Your task to perform on an android device: Play the last video I watched on Youtube Image 0: 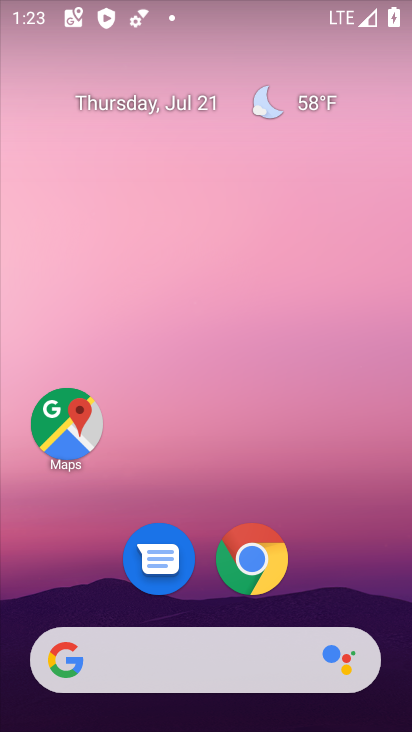
Step 0: drag from (381, 573) to (380, 110)
Your task to perform on an android device: Play the last video I watched on Youtube Image 1: 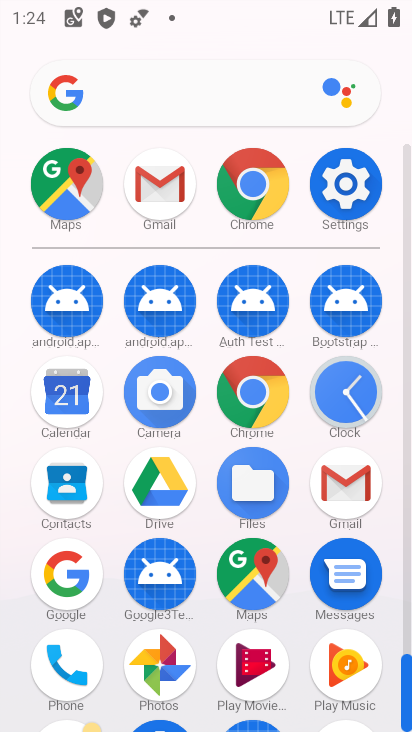
Step 1: drag from (392, 539) to (394, 373)
Your task to perform on an android device: Play the last video I watched on Youtube Image 2: 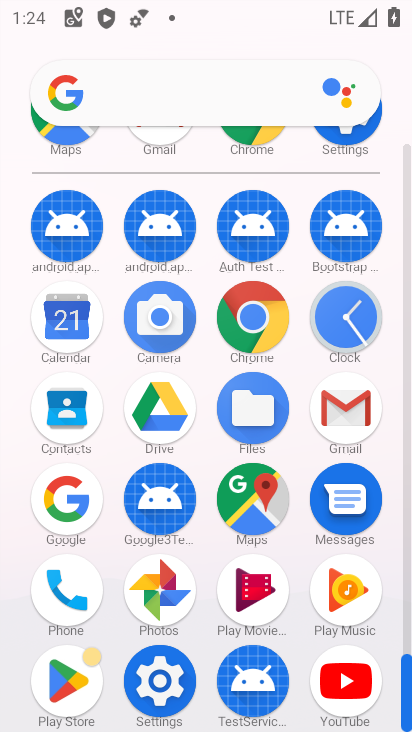
Step 2: click (357, 691)
Your task to perform on an android device: Play the last video I watched on Youtube Image 3: 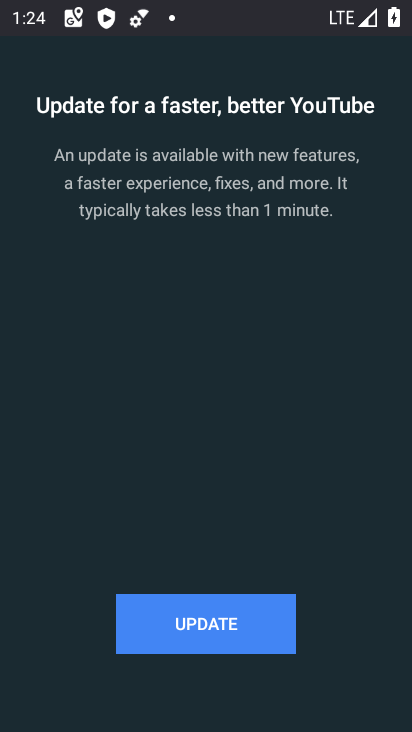
Step 3: click (293, 628)
Your task to perform on an android device: Play the last video I watched on Youtube Image 4: 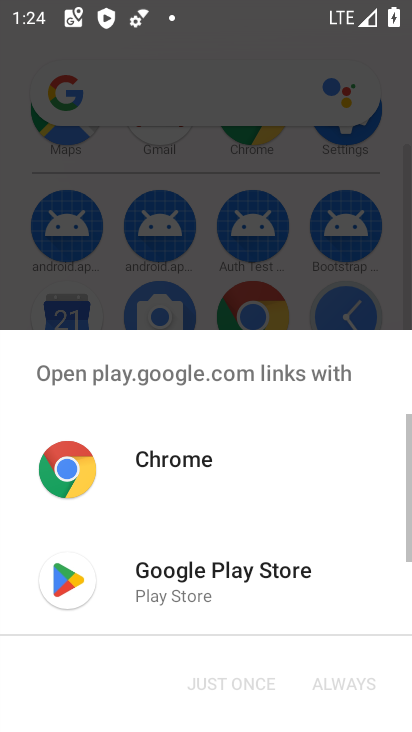
Step 4: click (226, 589)
Your task to perform on an android device: Play the last video I watched on Youtube Image 5: 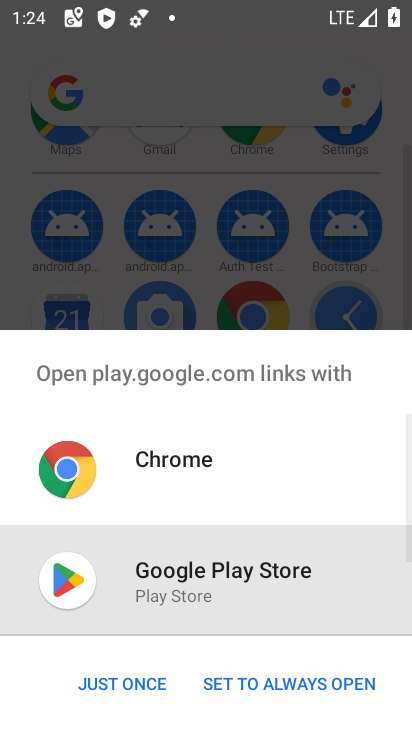
Step 5: click (117, 684)
Your task to perform on an android device: Play the last video I watched on Youtube Image 6: 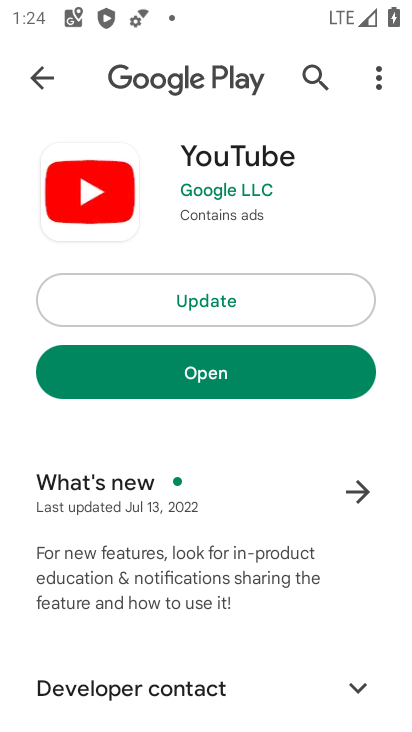
Step 6: click (282, 307)
Your task to perform on an android device: Play the last video I watched on Youtube Image 7: 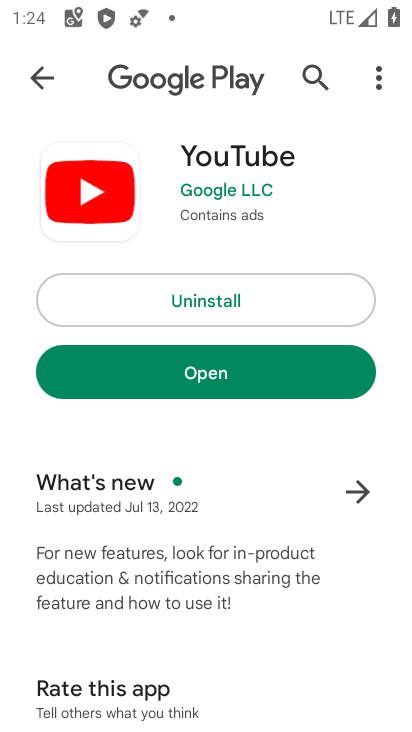
Step 7: click (271, 377)
Your task to perform on an android device: Play the last video I watched on Youtube Image 8: 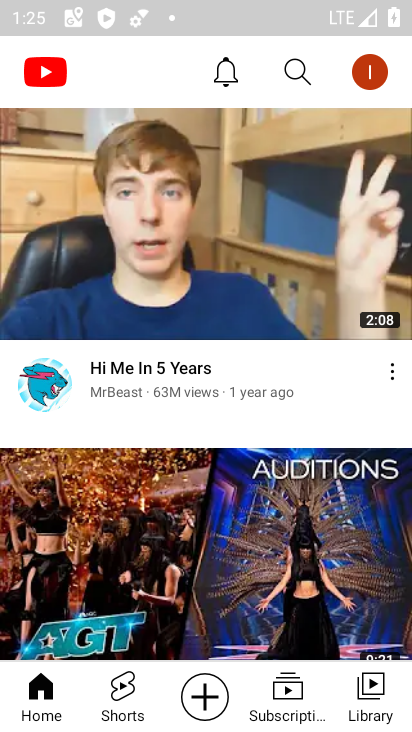
Step 8: click (372, 698)
Your task to perform on an android device: Play the last video I watched on Youtube Image 9: 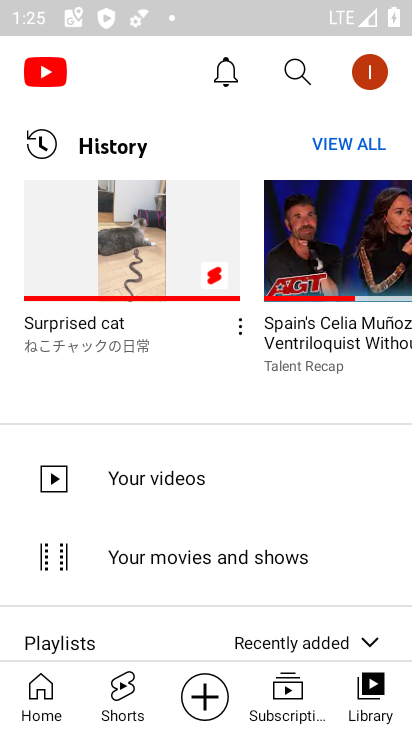
Step 9: click (121, 244)
Your task to perform on an android device: Play the last video I watched on Youtube Image 10: 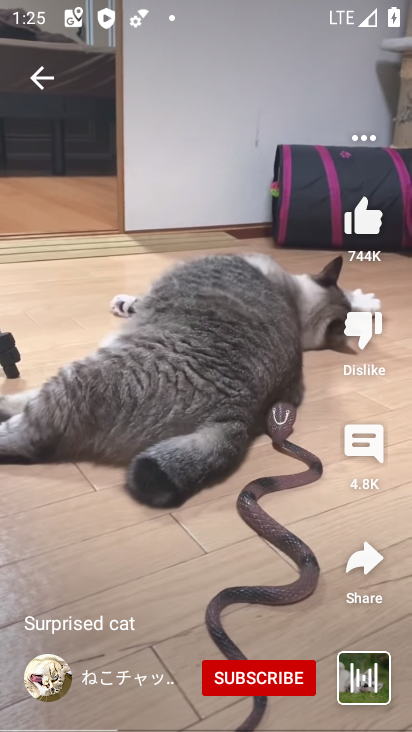
Step 10: task complete